Your task to perform on an android device: Open settings on Google Maps Image 0: 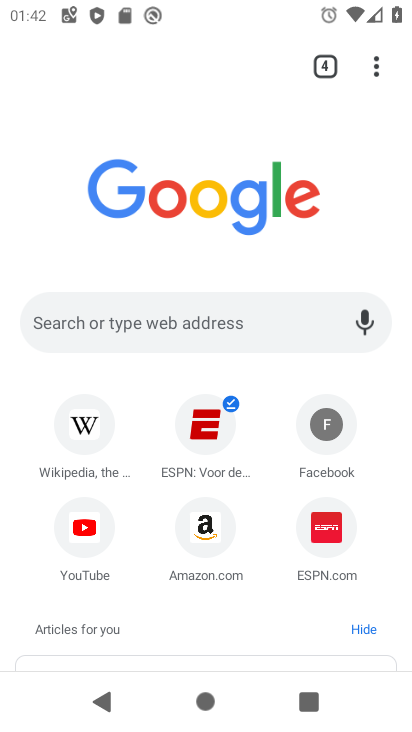
Step 0: press home button
Your task to perform on an android device: Open settings on Google Maps Image 1: 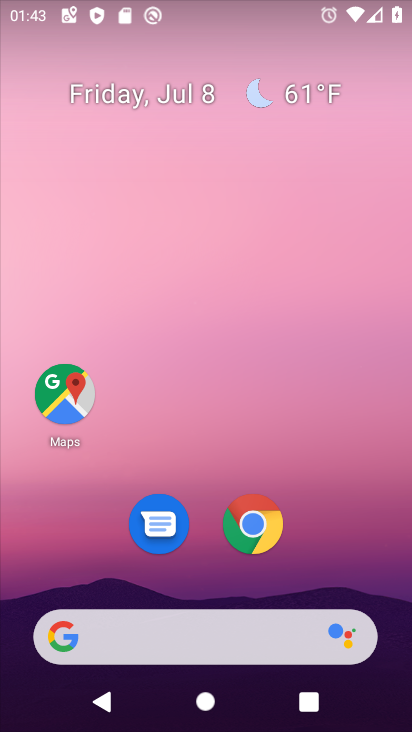
Step 1: click (63, 376)
Your task to perform on an android device: Open settings on Google Maps Image 2: 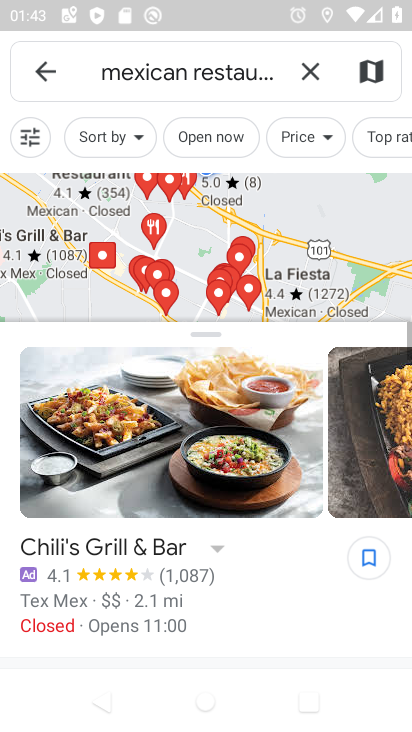
Step 2: click (53, 59)
Your task to perform on an android device: Open settings on Google Maps Image 3: 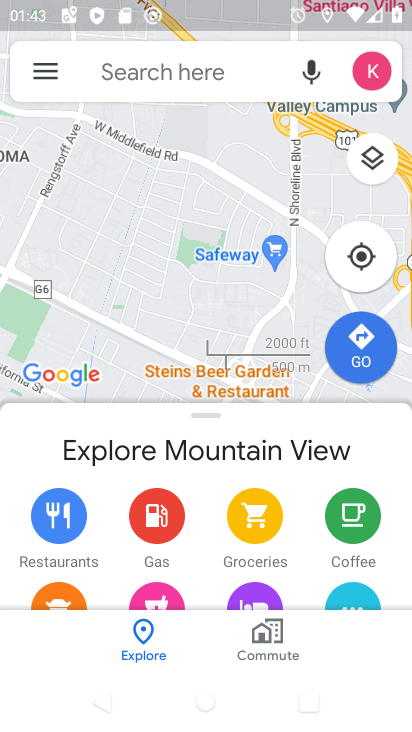
Step 3: click (42, 76)
Your task to perform on an android device: Open settings on Google Maps Image 4: 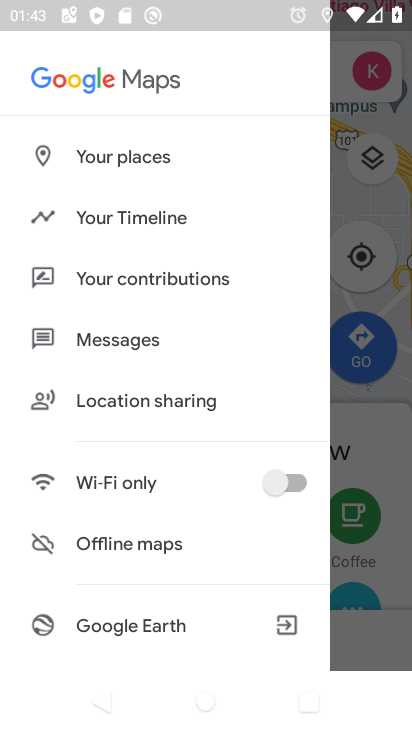
Step 4: drag from (142, 532) to (117, 115)
Your task to perform on an android device: Open settings on Google Maps Image 5: 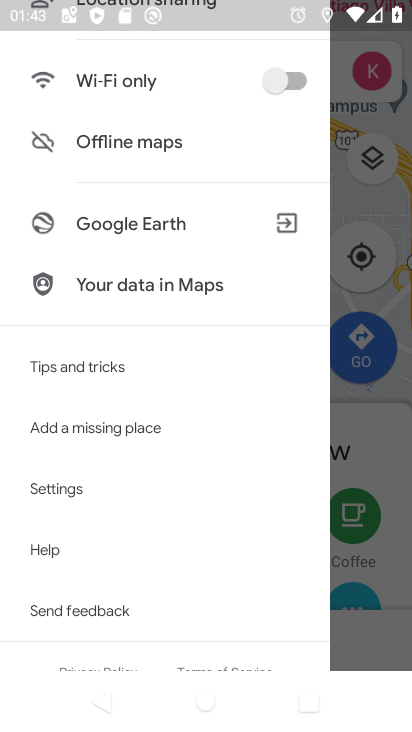
Step 5: click (85, 485)
Your task to perform on an android device: Open settings on Google Maps Image 6: 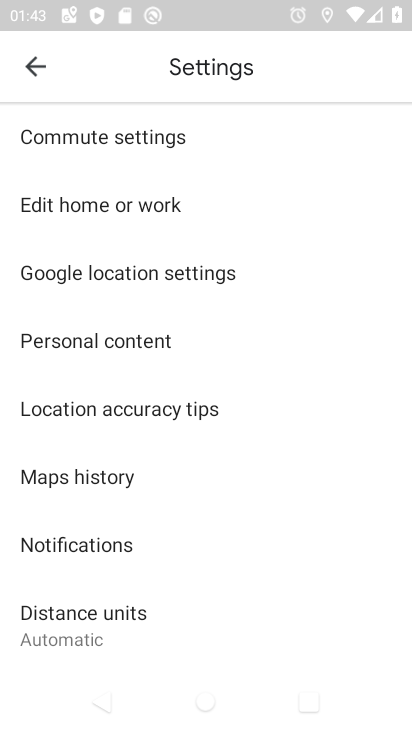
Step 6: task complete